Your task to perform on an android device: Go to notification settings Image 0: 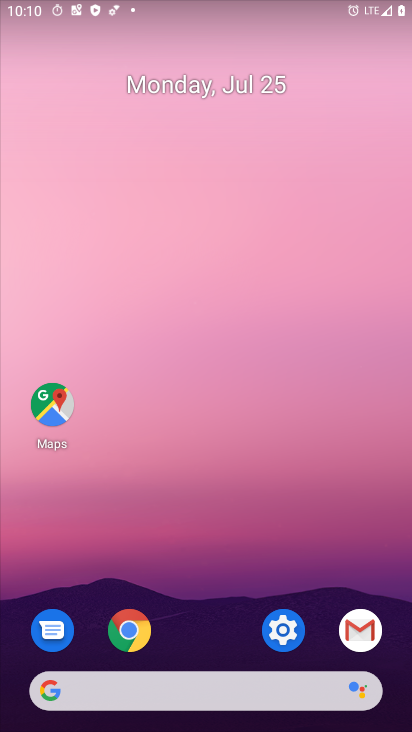
Step 0: click (284, 636)
Your task to perform on an android device: Go to notification settings Image 1: 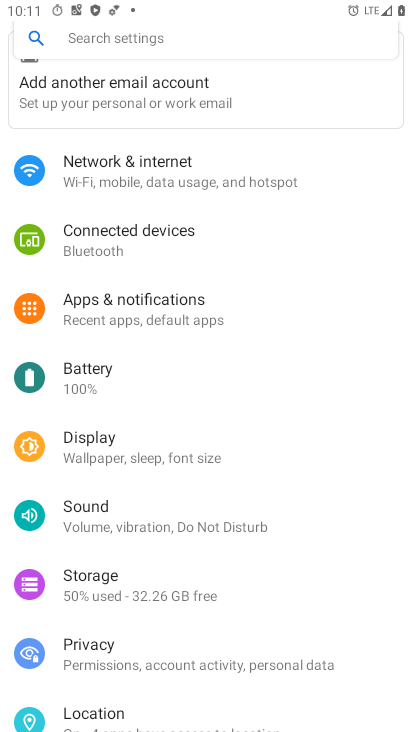
Step 1: drag from (157, 176) to (139, 340)
Your task to perform on an android device: Go to notification settings Image 2: 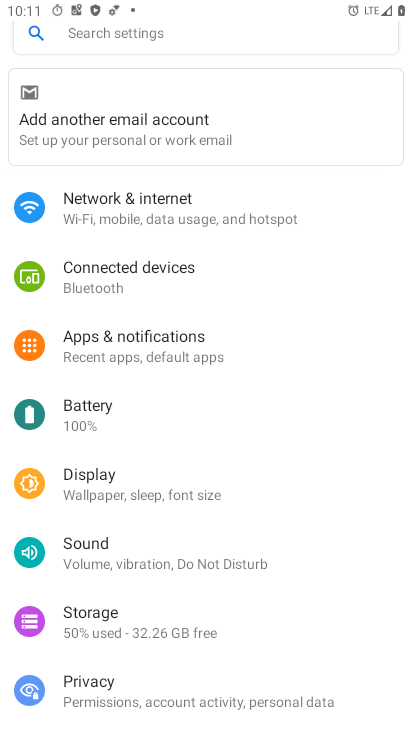
Step 2: click (114, 58)
Your task to perform on an android device: Go to notification settings Image 3: 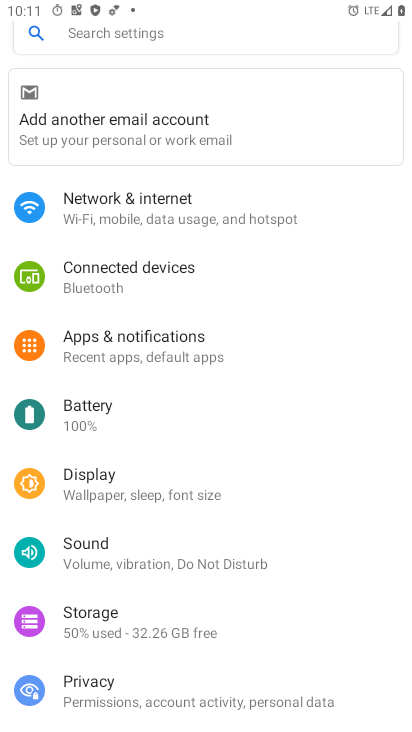
Step 3: click (115, 37)
Your task to perform on an android device: Go to notification settings Image 4: 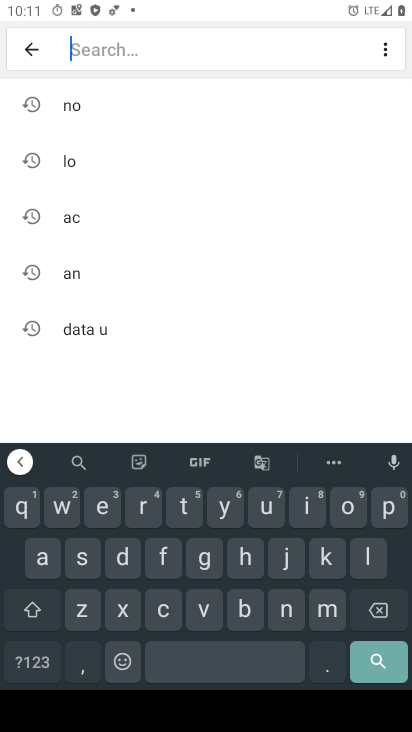
Step 4: click (278, 619)
Your task to perform on an android device: Go to notification settings Image 5: 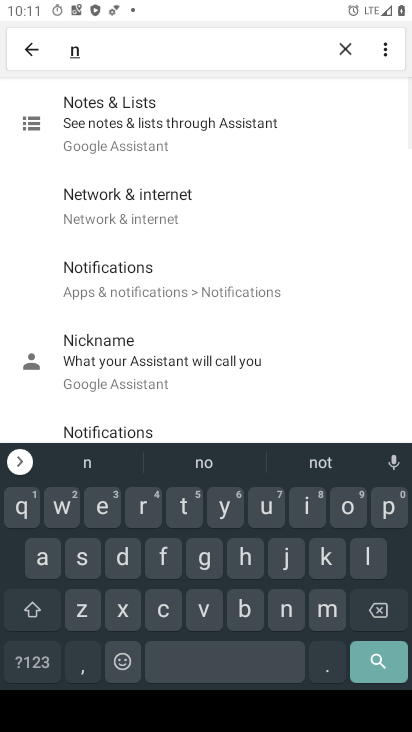
Step 5: click (340, 509)
Your task to perform on an android device: Go to notification settings Image 6: 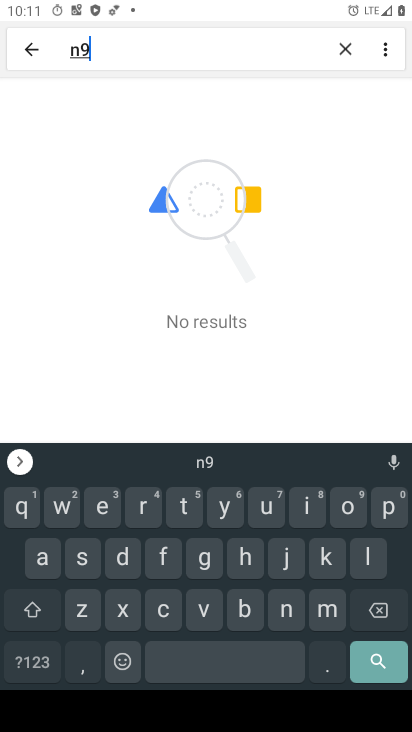
Step 6: click (377, 615)
Your task to perform on an android device: Go to notification settings Image 7: 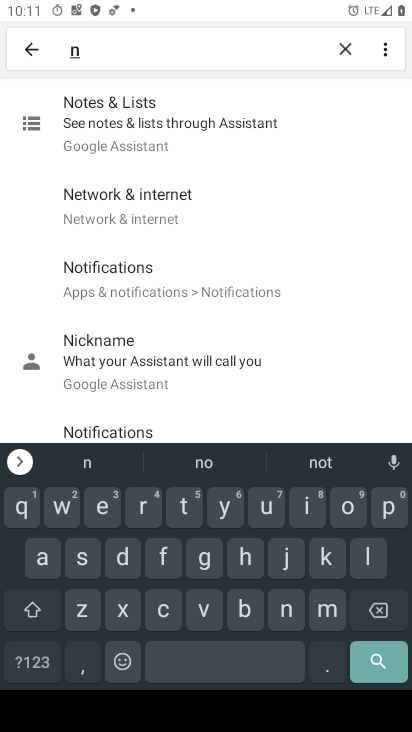
Step 7: click (346, 517)
Your task to perform on an android device: Go to notification settings Image 8: 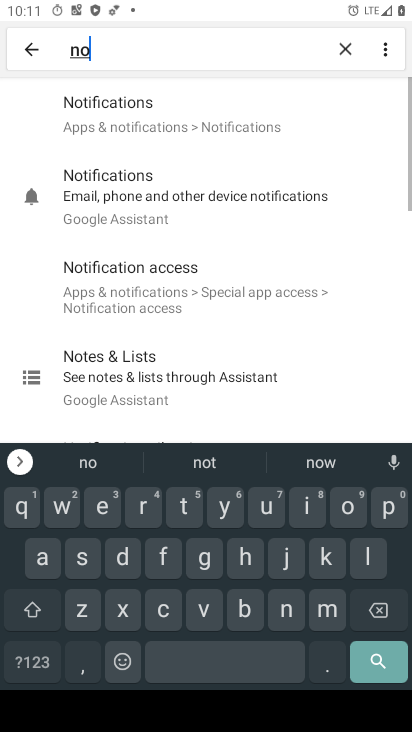
Step 8: click (141, 110)
Your task to perform on an android device: Go to notification settings Image 9: 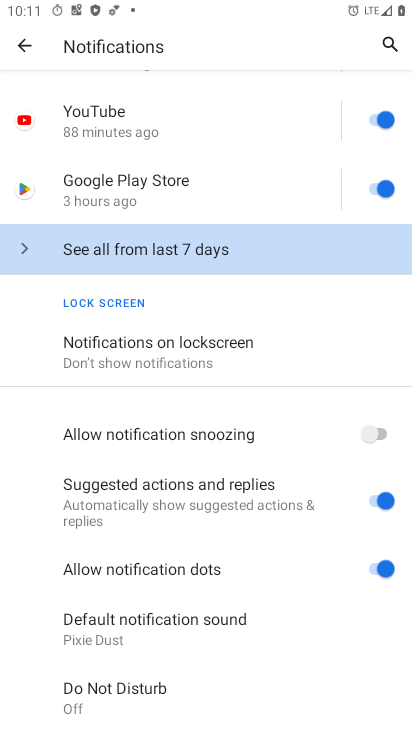
Step 9: click (110, 361)
Your task to perform on an android device: Go to notification settings Image 10: 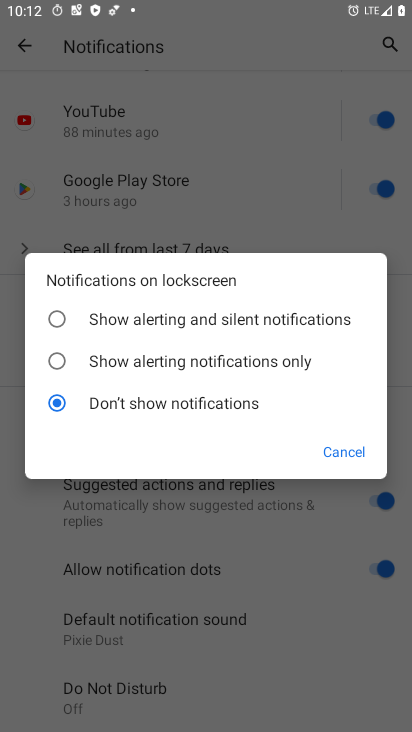
Step 10: task complete